Your task to perform on an android device: Do I have any events this weekend? Image 0: 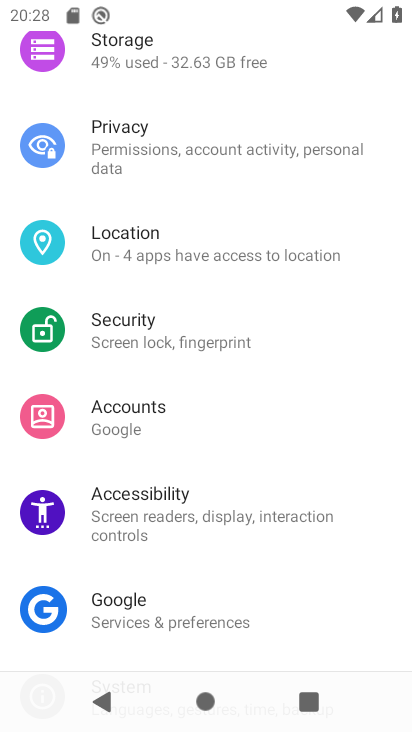
Step 0: press home button
Your task to perform on an android device: Do I have any events this weekend? Image 1: 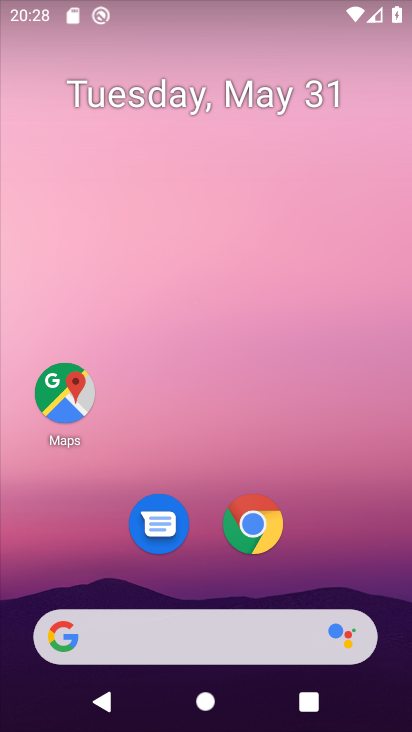
Step 1: drag from (202, 466) to (256, 37)
Your task to perform on an android device: Do I have any events this weekend? Image 2: 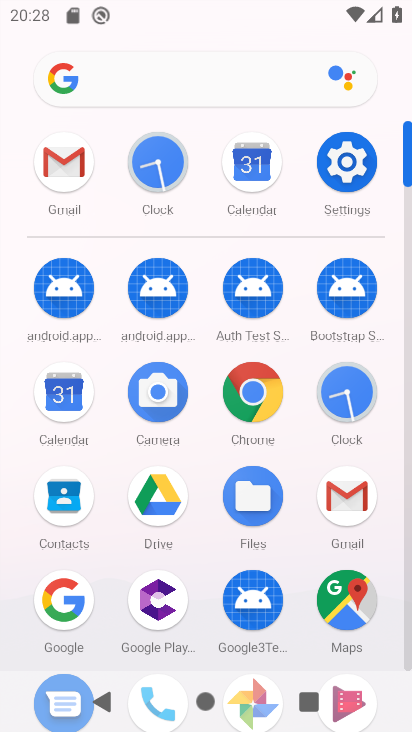
Step 2: click (249, 170)
Your task to perform on an android device: Do I have any events this weekend? Image 3: 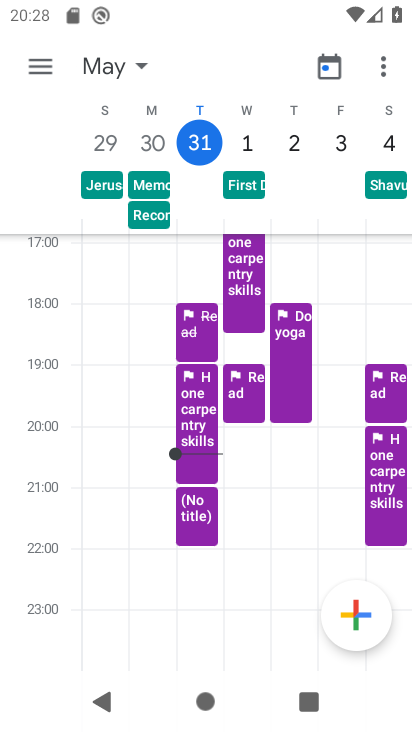
Step 3: click (389, 139)
Your task to perform on an android device: Do I have any events this weekend? Image 4: 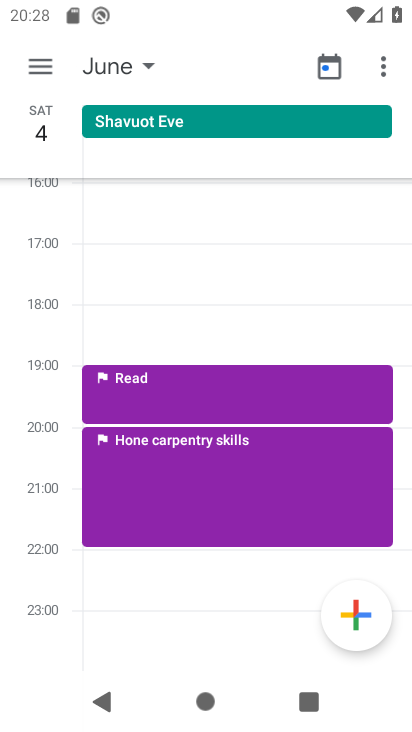
Step 4: click (48, 64)
Your task to perform on an android device: Do I have any events this weekend? Image 5: 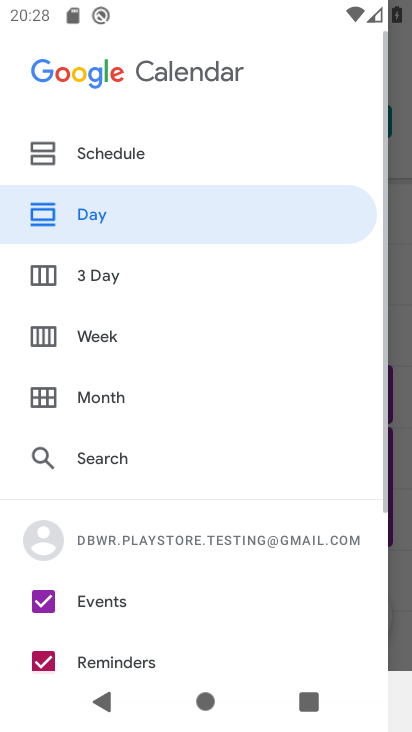
Step 5: click (98, 141)
Your task to perform on an android device: Do I have any events this weekend? Image 6: 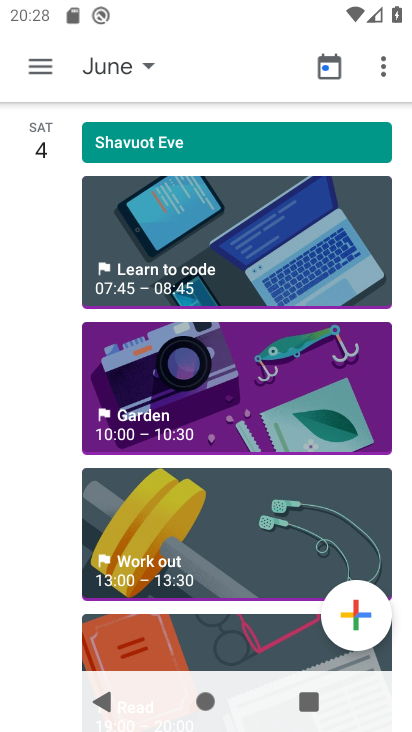
Step 6: task complete